Your task to perform on an android device: Show me popular games on the Play Store Image 0: 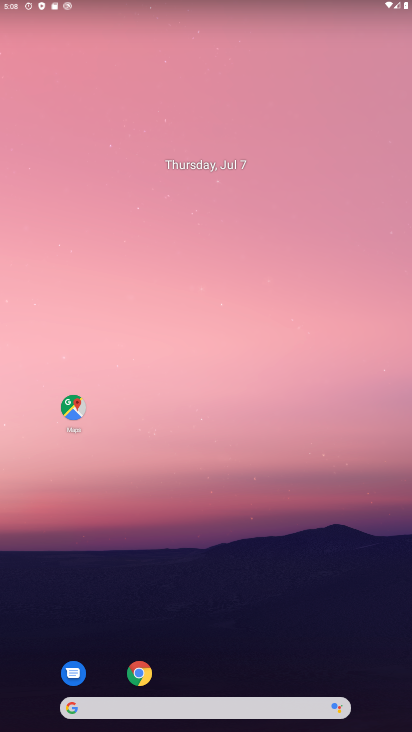
Step 0: drag from (285, 692) to (332, 116)
Your task to perform on an android device: Show me popular games on the Play Store Image 1: 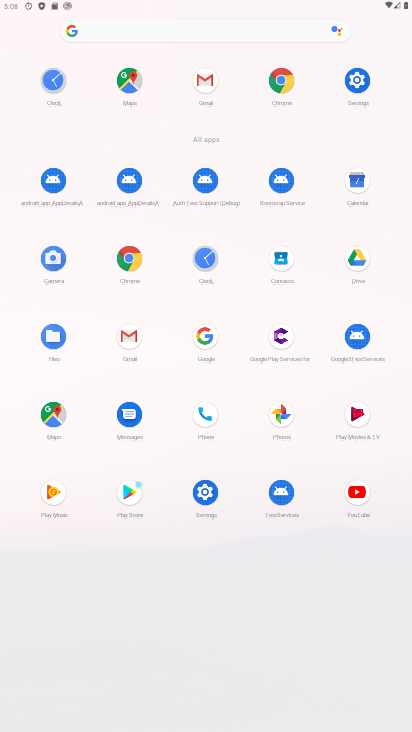
Step 1: click (126, 495)
Your task to perform on an android device: Show me popular games on the Play Store Image 2: 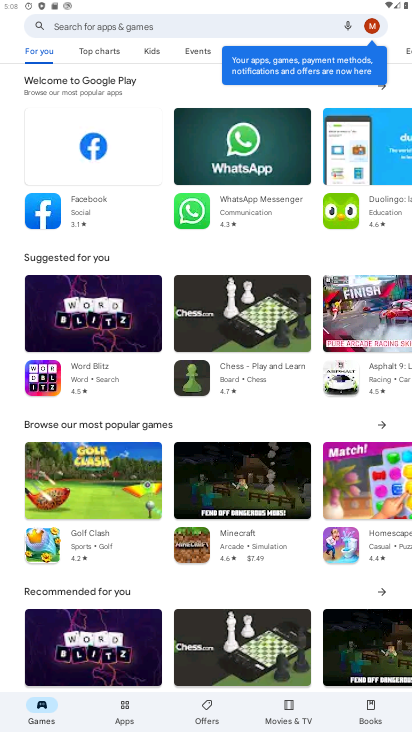
Step 2: drag from (206, 533) to (215, 359)
Your task to perform on an android device: Show me popular games on the Play Store Image 3: 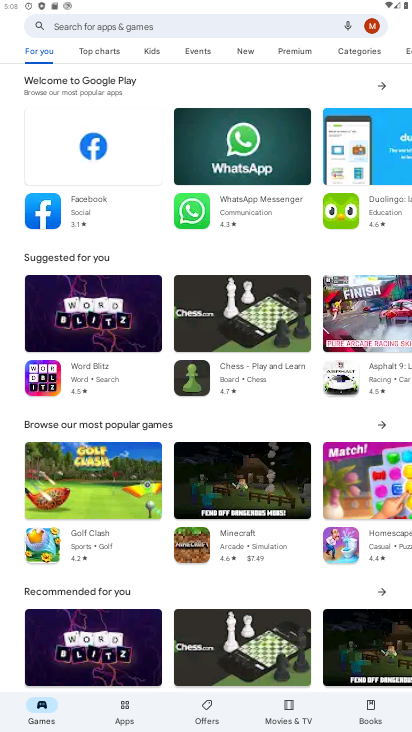
Step 3: click (380, 423)
Your task to perform on an android device: Show me popular games on the Play Store Image 4: 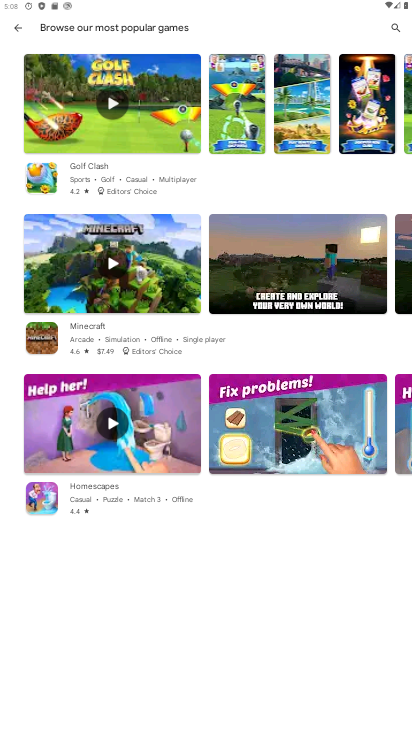
Step 4: task complete